Your task to perform on an android device: Open ESPN.com Image 0: 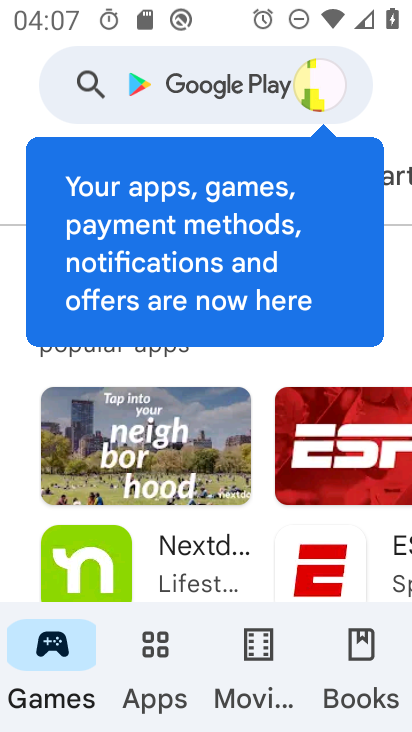
Step 0: press home button
Your task to perform on an android device: Open ESPN.com Image 1: 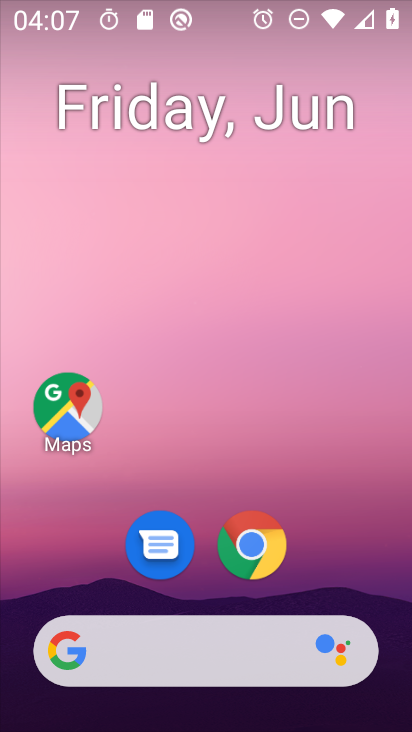
Step 1: click (280, 550)
Your task to perform on an android device: Open ESPN.com Image 2: 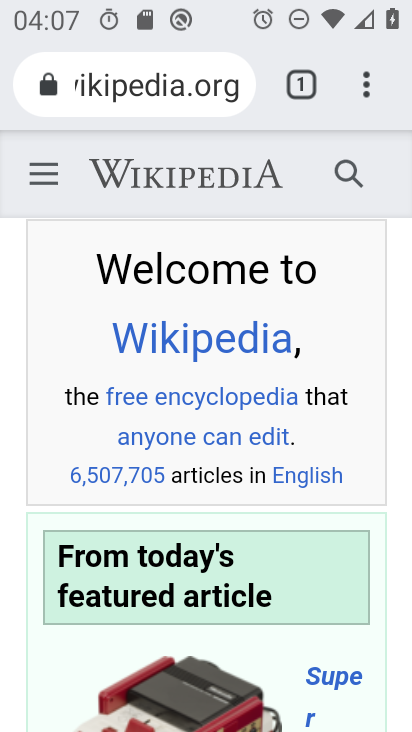
Step 2: click (165, 107)
Your task to perform on an android device: Open ESPN.com Image 3: 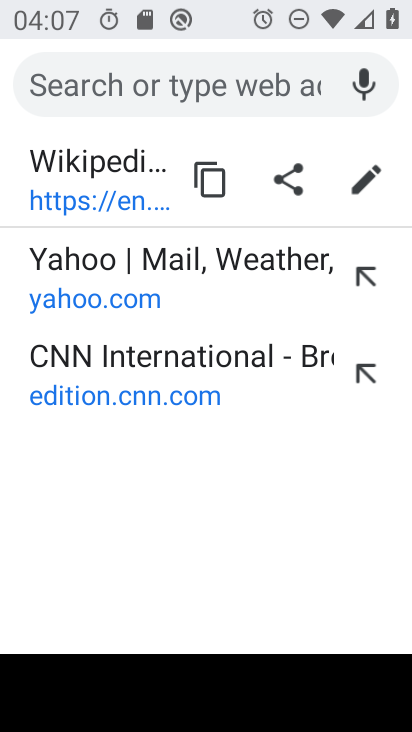
Step 3: type "ESPN.com"
Your task to perform on an android device: Open ESPN.com Image 4: 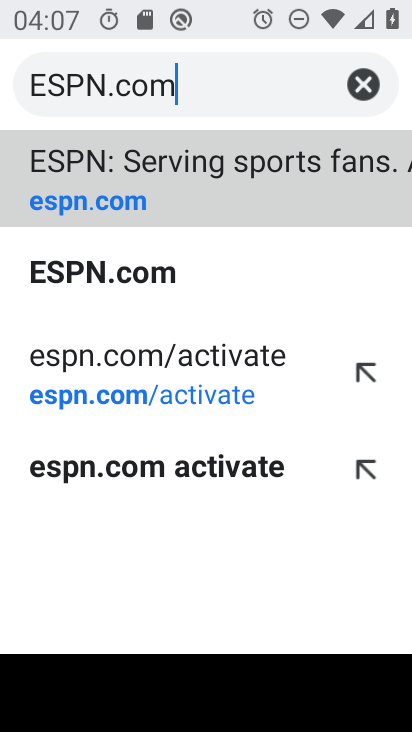
Step 4: click (102, 140)
Your task to perform on an android device: Open ESPN.com Image 5: 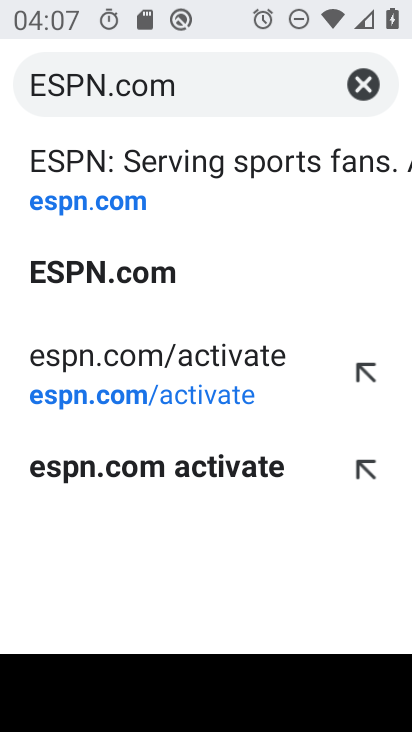
Step 5: click (94, 189)
Your task to perform on an android device: Open ESPN.com Image 6: 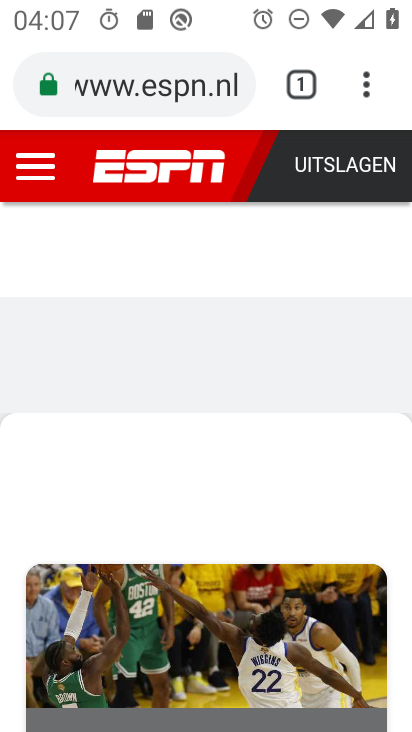
Step 6: task complete